Your task to perform on an android device: Open battery settings Image 0: 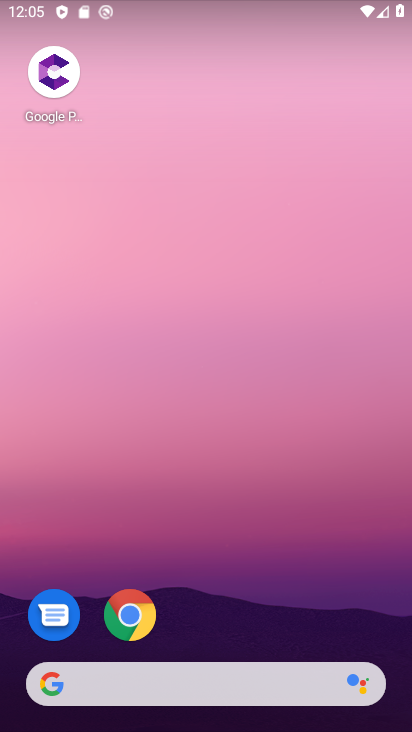
Step 0: drag from (225, 634) to (304, 124)
Your task to perform on an android device: Open battery settings Image 1: 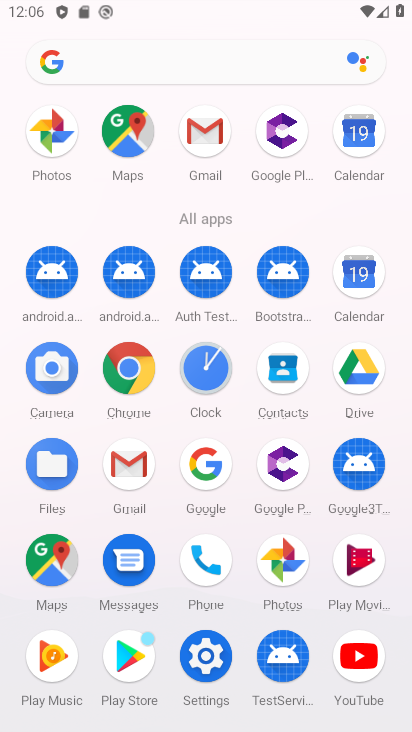
Step 1: click (203, 660)
Your task to perform on an android device: Open battery settings Image 2: 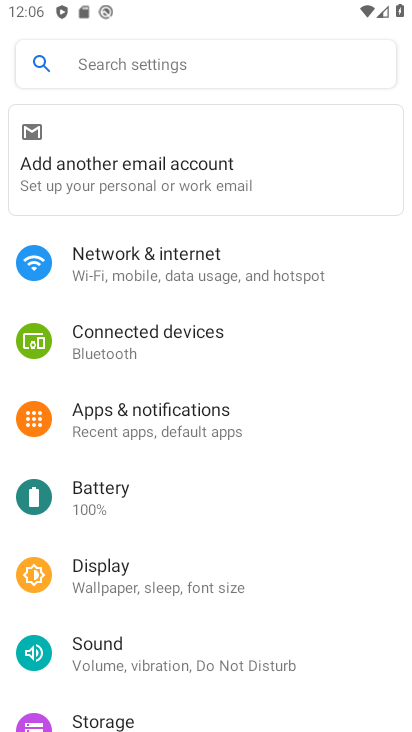
Step 2: drag from (310, 611) to (366, 138)
Your task to perform on an android device: Open battery settings Image 3: 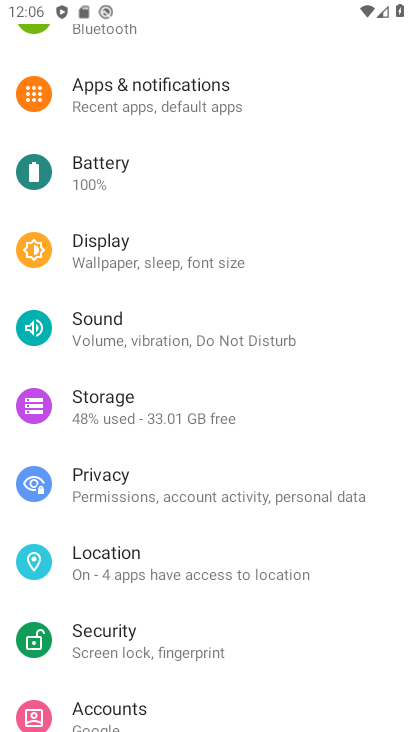
Step 3: click (102, 161)
Your task to perform on an android device: Open battery settings Image 4: 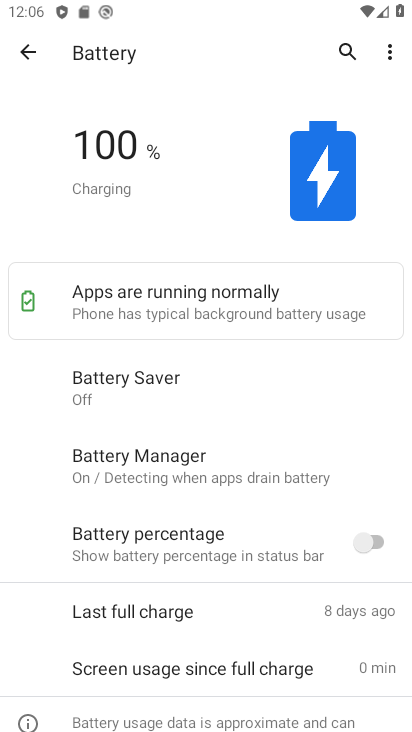
Step 4: task complete